Your task to perform on an android device: Open accessibility settings Image 0: 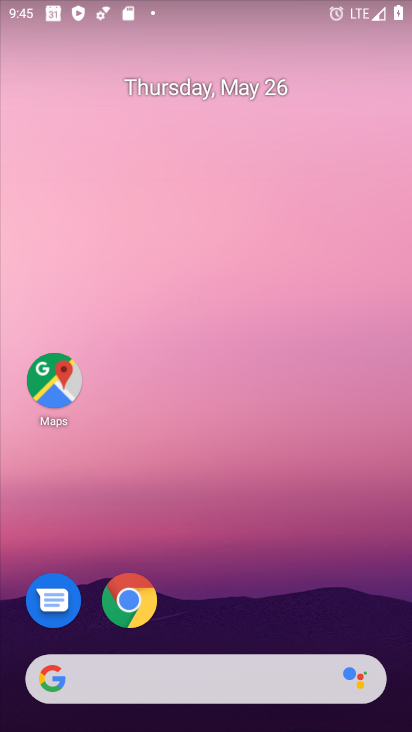
Step 0: drag from (278, 553) to (269, 59)
Your task to perform on an android device: Open accessibility settings Image 1: 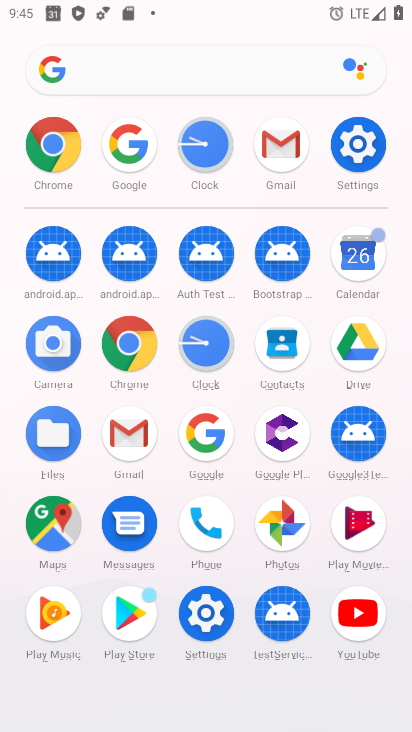
Step 1: click (351, 123)
Your task to perform on an android device: Open accessibility settings Image 2: 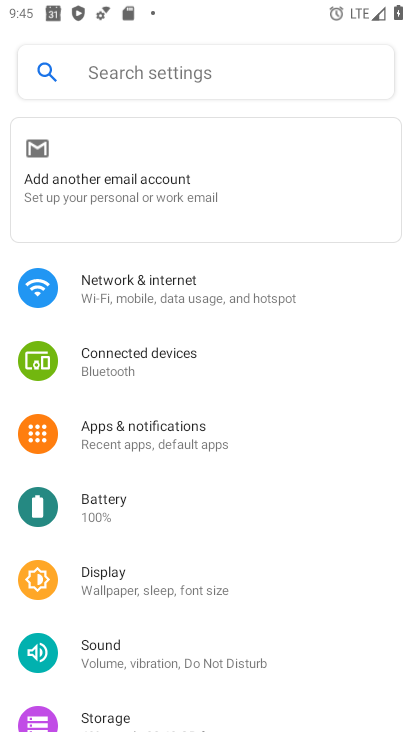
Step 2: drag from (175, 607) to (271, 22)
Your task to perform on an android device: Open accessibility settings Image 3: 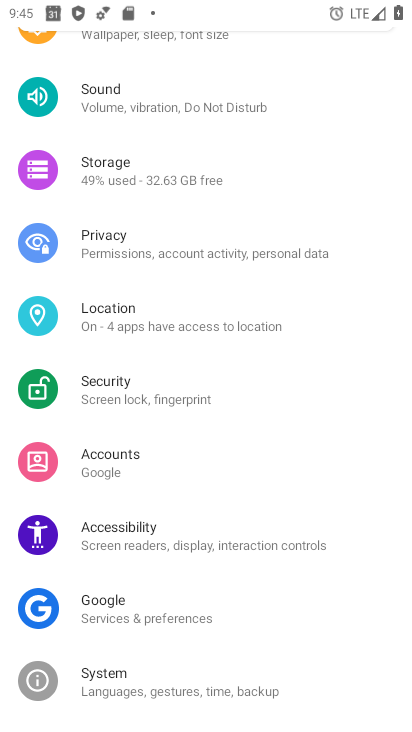
Step 3: drag from (237, 568) to (281, 248)
Your task to perform on an android device: Open accessibility settings Image 4: 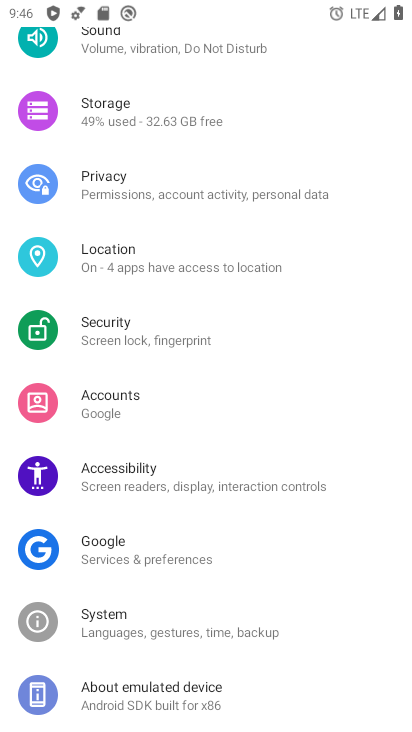
Step 4: click (151, 460)
Your task to perform on an android device: Open accessibility settings Image 5: 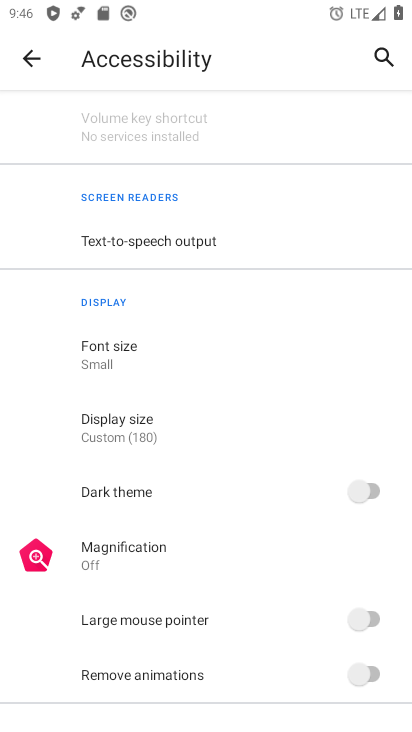
Step 5: task complete